Your task to perform on an android device: turn off translation in the chrome app Image 0: 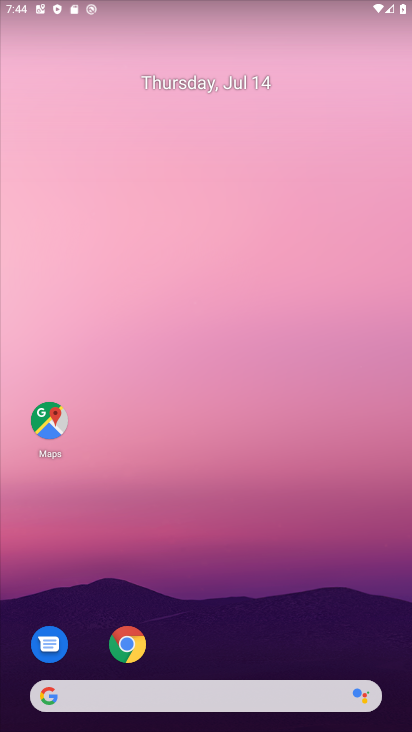
Step 0: click (126, 641)
Your task to perform on an android device: turn off translation in the chrome app Image 1: 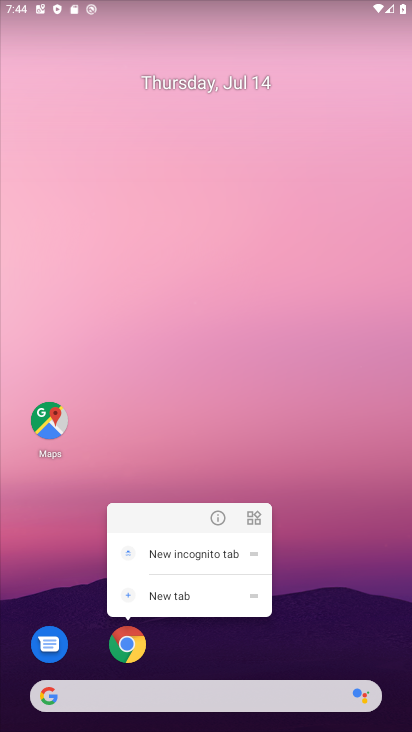
Step 1: click (126, 641)
Your task to perform on an android device: turn off translation in the chrome app Image 2: 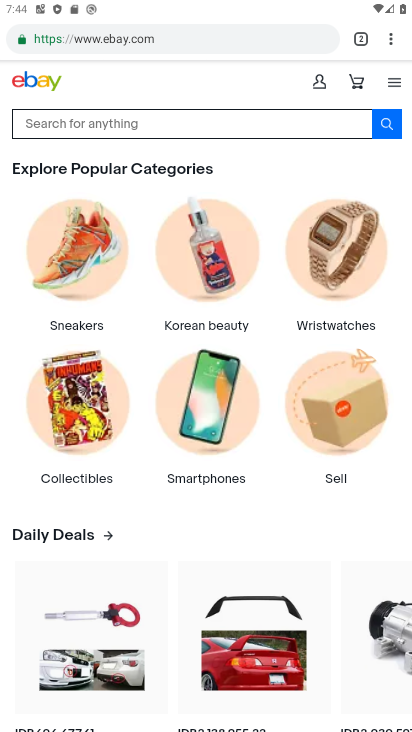
Step 2: drag from (389, 42) to (275, 525)
Your task to perform on an android device: turn off translation in the chrome app Image 3: 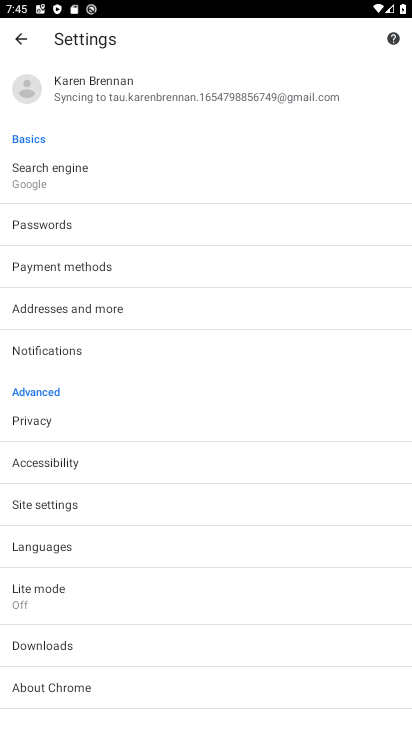
Step 3: click (49, 545)
Your task to perform on an android device: turn off translation in the chrome app Image 4: 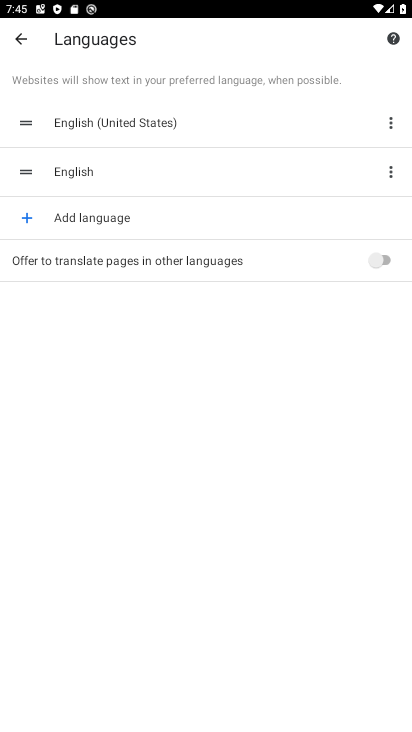
Step 4: click (390, 257)
Your task to perform on an android device: turn off translation in the chrome app Image 5: 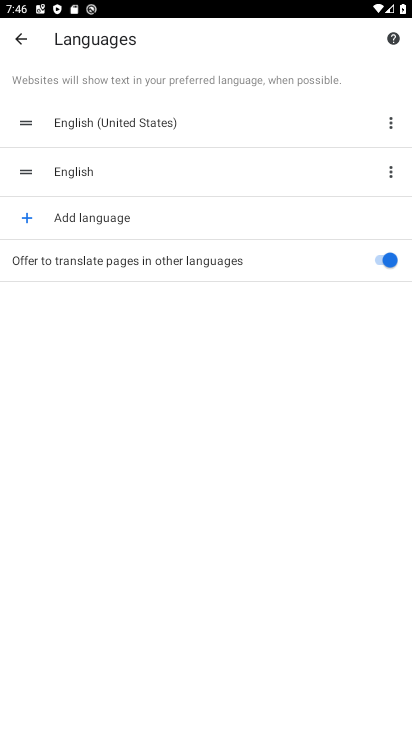
Step 5: task complete